Your task to perform on an android device: Open Android settings Image 0: 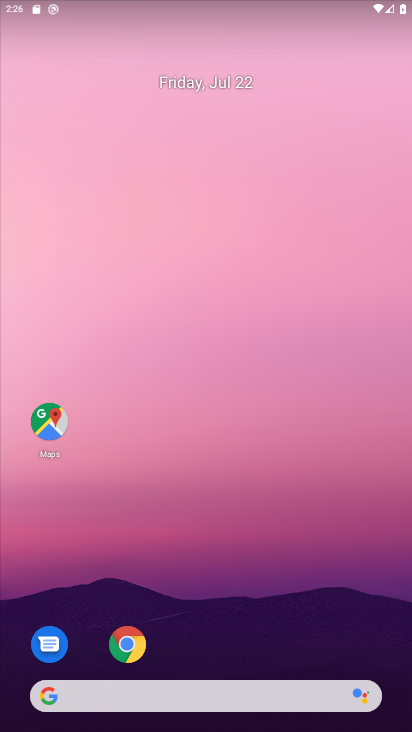
Step 0: drag from (210, 617) to (409, 182)
Your task to perform on an android device: Open Android settings Image 1: 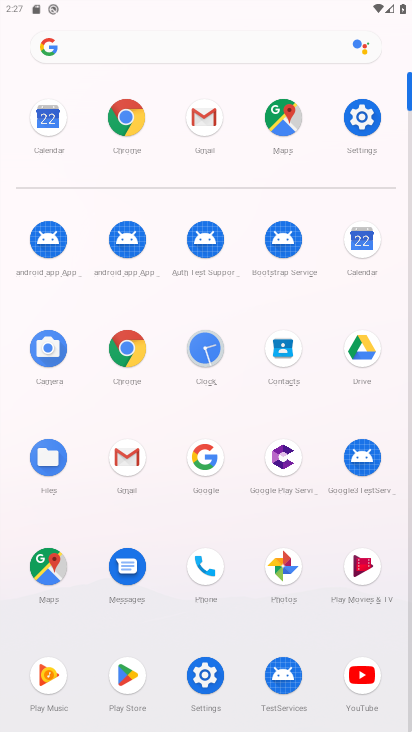
Step 1: click (370, 192)
Your task to perform on an android device: Open Android settings Image 2: 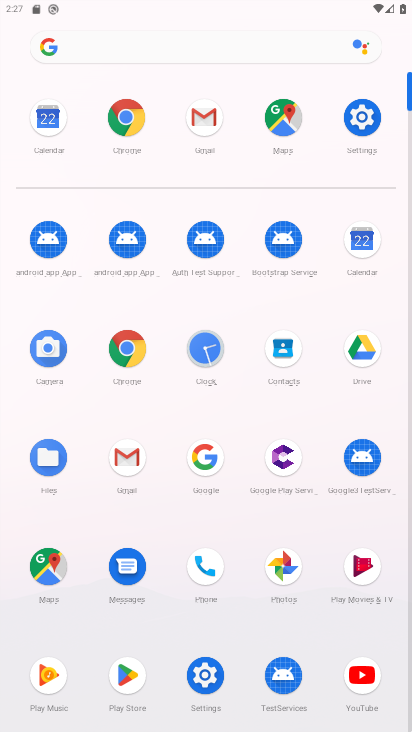
Step 2: click (370, 121)
Your task to perform on an android device: Open Android settings Image 3: 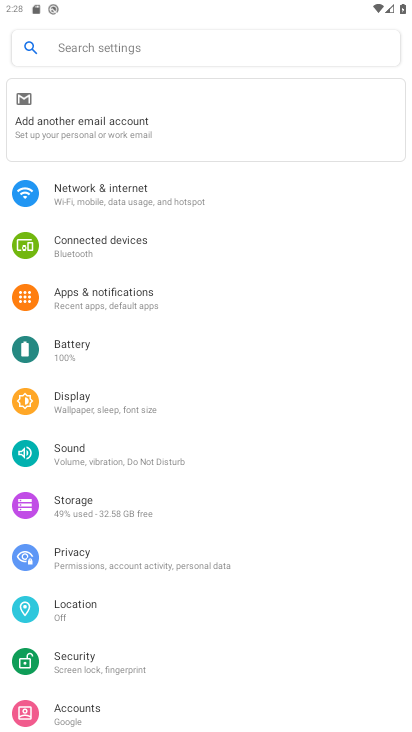
Step 3: task complete